Your task to perform on an android device: open sync settings in chrome Image 0: 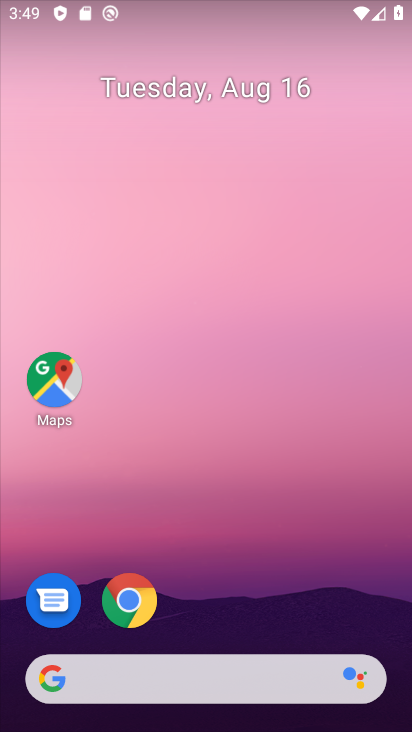
Step 0: drag from (227, 473) to (282, 18)
Your task to perform on an android device: open sync settings in chrome Image 1: 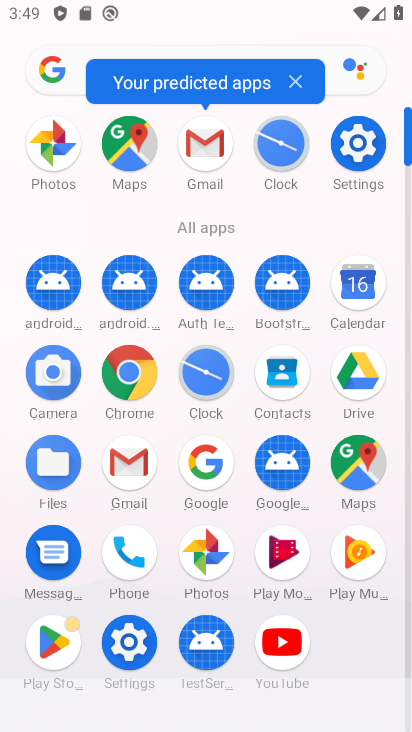
Step 1: click (144, 644)
Your task to perform on an android device: open sync settings in chrome Image 2: 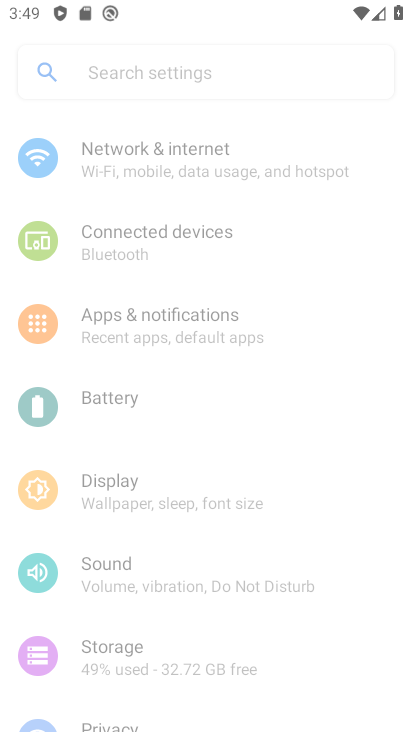
Step 2: press home button
Your task to perform on an android device: open sync settings in chrome Image 3: 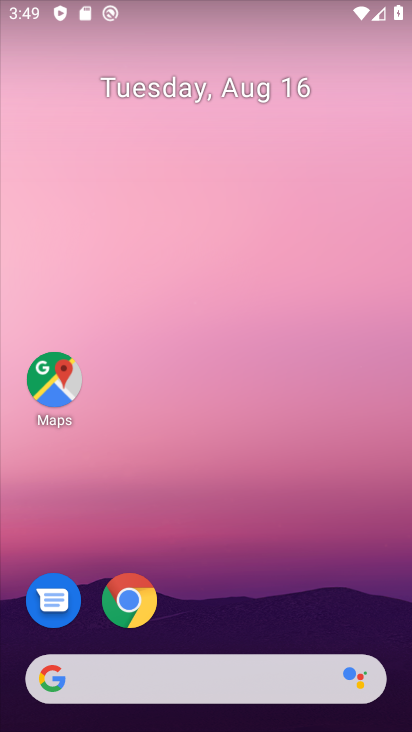
Step 3: click (131, 611)
Your task to perform on an android device: open sync settings in chrome Image 4: 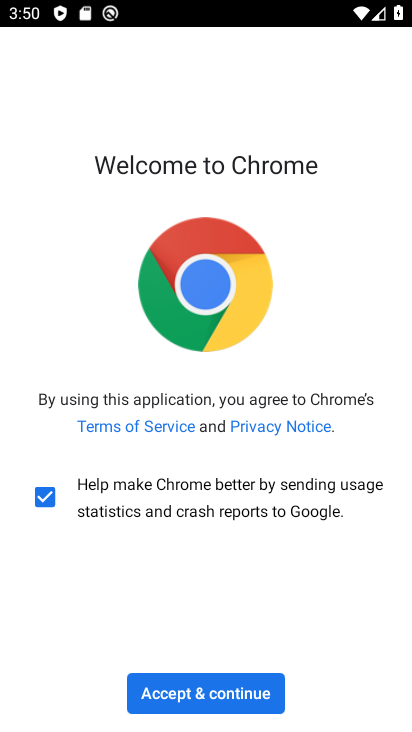
Step 4: click (197, 692)
Your task to perform on an android device: open sync settings in chrome Image 5: 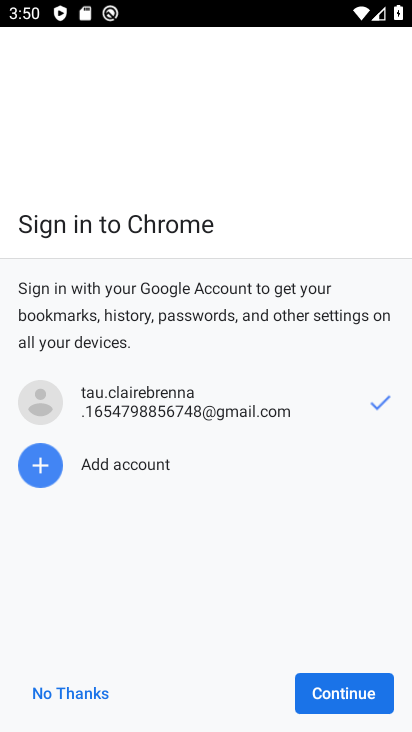
Step 5: click (339, 675)
Your task to perform on an android device: open sync settings in chrome Image 6: 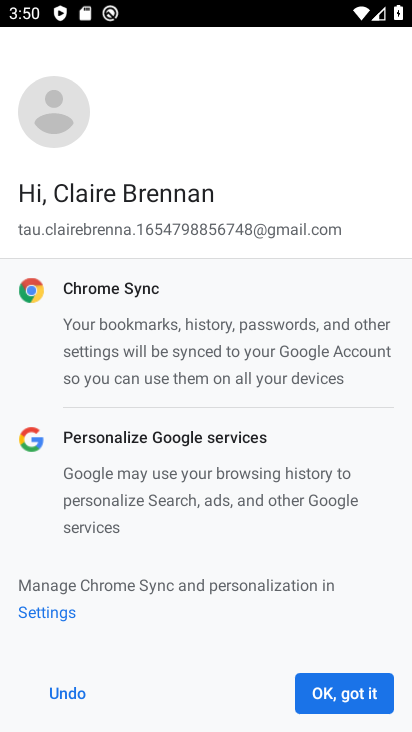
Step 6: click (335, 686)
Your task to perform on an android device: open sync settings in chrome Image 7: 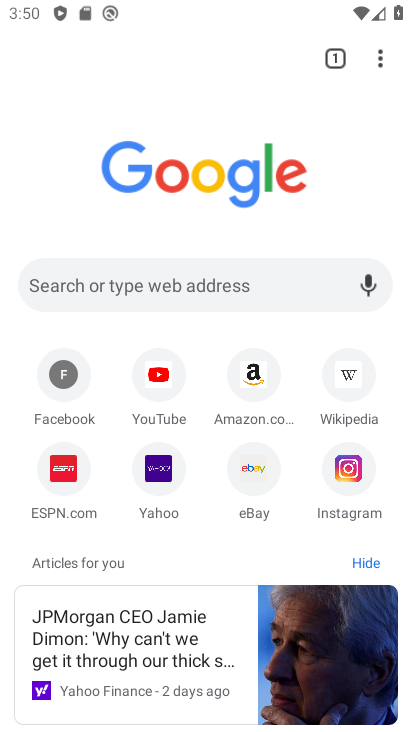
Step 7: click (383, 61)
Your task to perform on an android device: open sync settings in chrome Image 8: 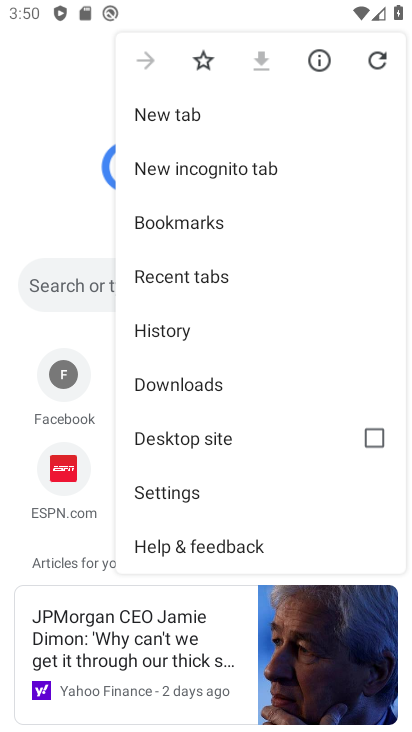
Step 8: click (164, 486)
Your task to perform on an android device: open sync settings in chrome Image 9: 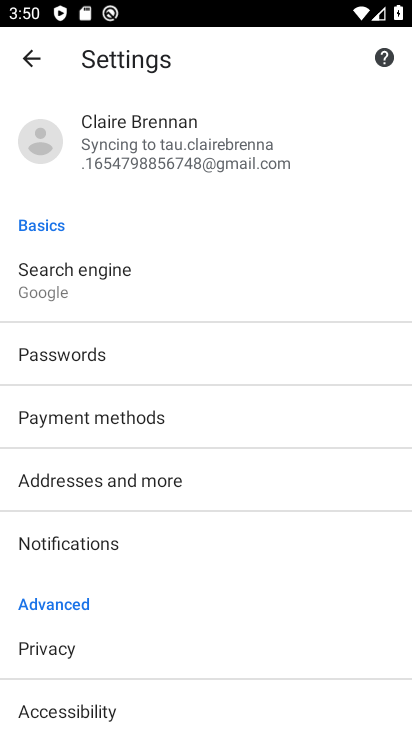
Step 9: click (152, 153)
Your task to perform on an android device: open sync settings in chrome Image 10: 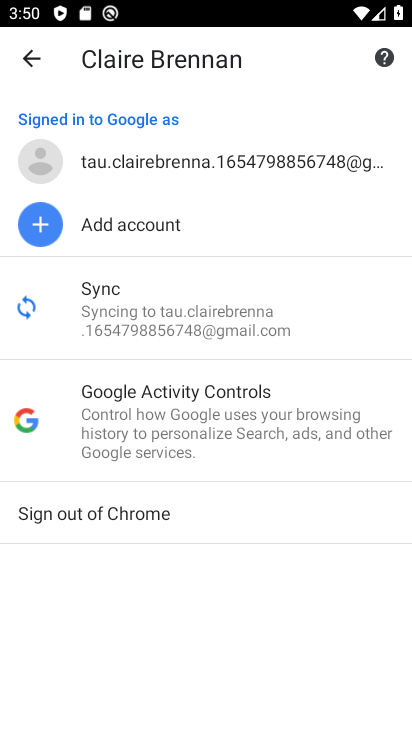
Step 10: click (155, 324)
Your task to perform on an android device: open sync settings in chrome Image 11: 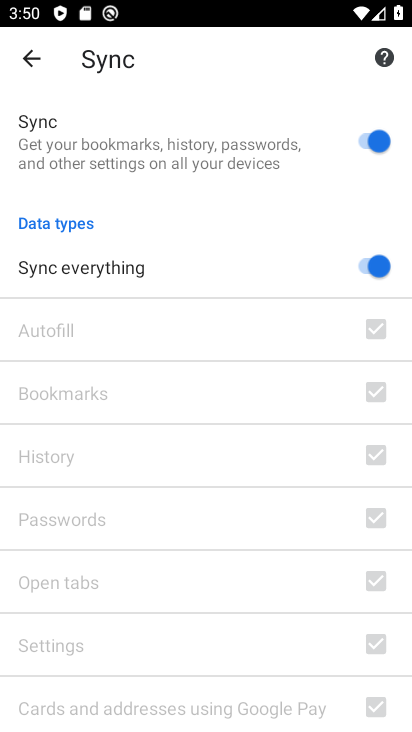
Step 11: task complete